Your task to perform on an android device: show emergency info Image 0: 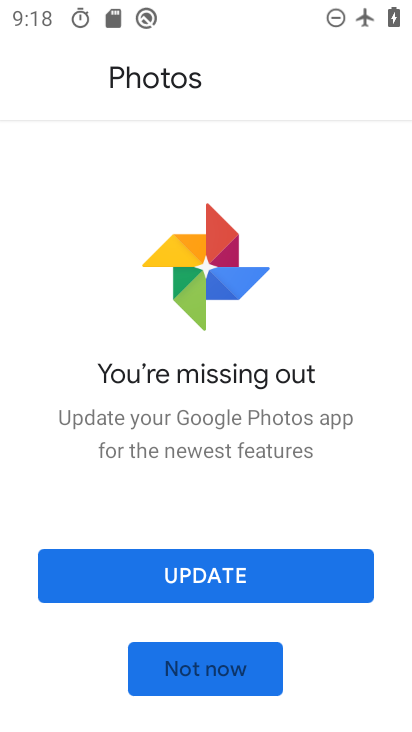
Step 0: press home button
Your task to perform on an android device: show emergency info Image 1: 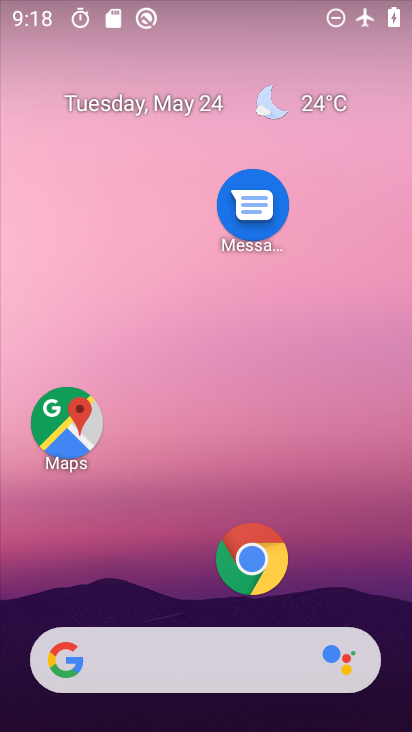
Step 1: drag from (192, 600) to (198, 126)
Your task to perform on an android device: show emergency info Image 2: 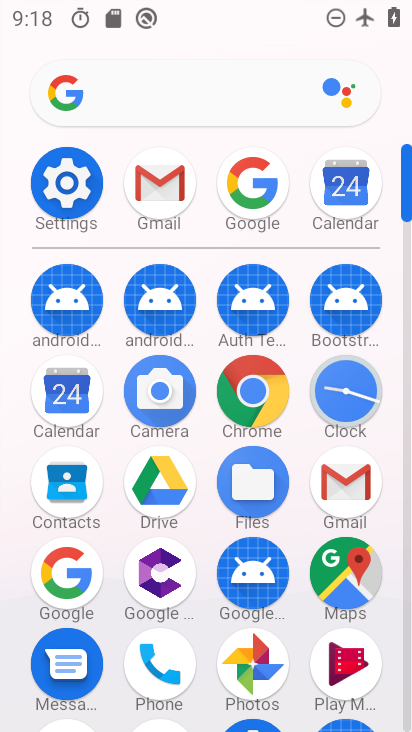
Step 2: click (66, 159)
Your task to perform on an android device: show emergency info Image 3: 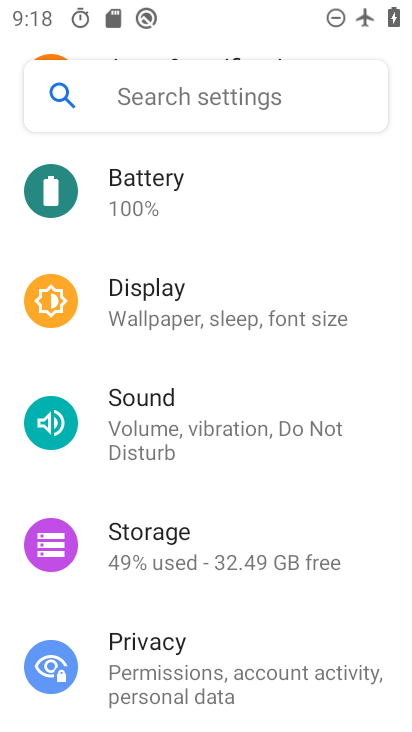
Step 3: drag from (178, 686) to (235, 249)
Your task to perform on an android device: show emergency info Image 4: 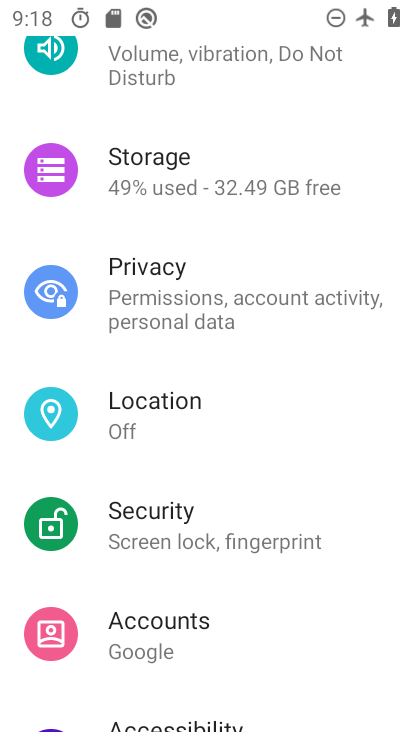
Step 4: drag from (183, 668) to (229, 197)
Your task to perform on an android device: show emergency info Image 5: 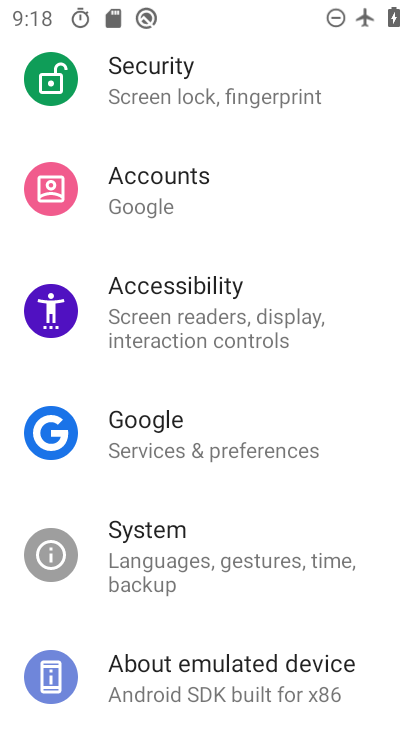
Step 5: click (222, 661)
Your task to perform on an android device: show emergency info Image 6: 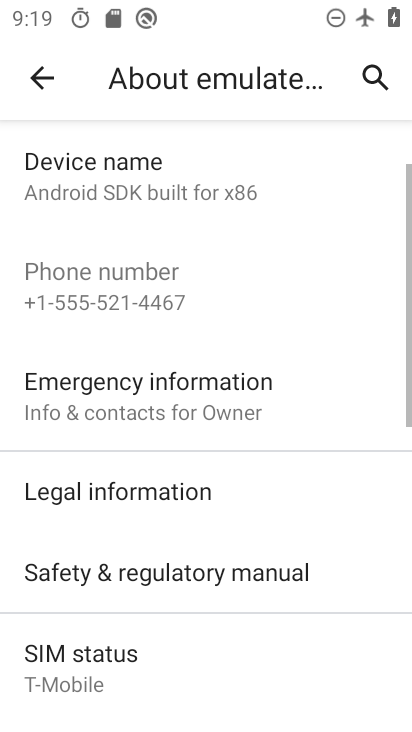
Step 6: click (217, 415)
Your task to perform on an android device: show emergency info Image 7: 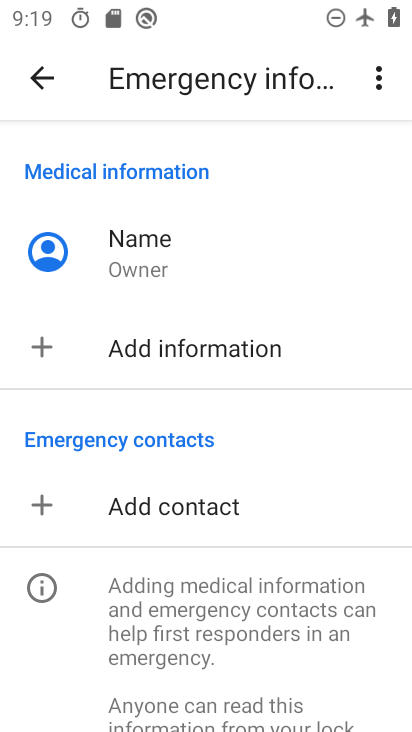
Step 7: task complete